Your task to perform on an android device: Open Google Maps Image 0: 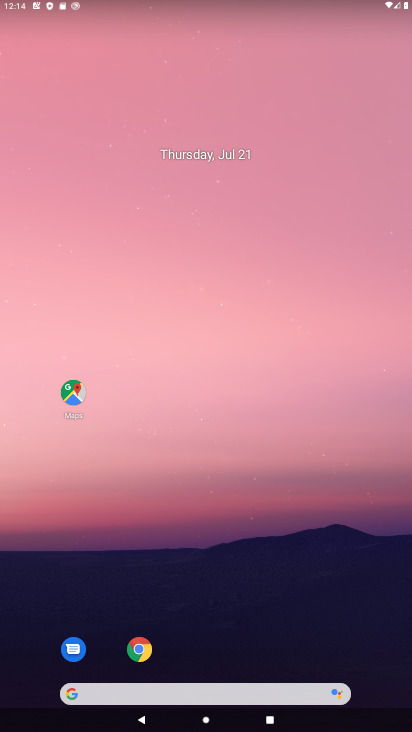
Step 0: click (75, 394)
Your task to perform on an android device: Open Google Maps Image 1: 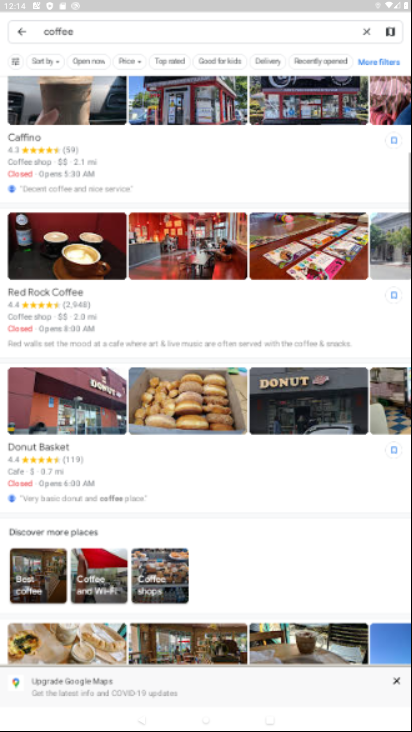
Step 1: click (366, 29)
Your task to perform on an android device: Open Google Maps Image 2: 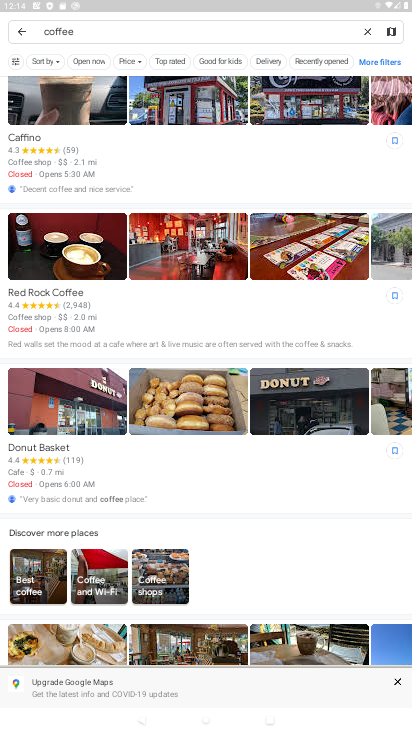
Step 2: click (368, 28)
Your task to perform on an android device: Open Google Maps Image 3: 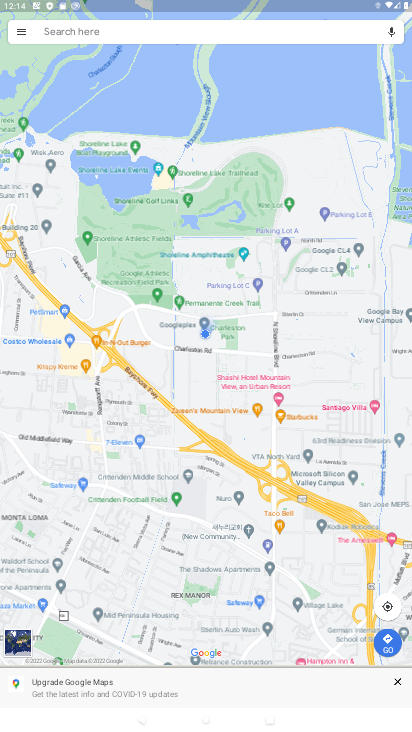
Step 3: task complete